Your task to perform on an android device: Go to privacy settings Image 0: 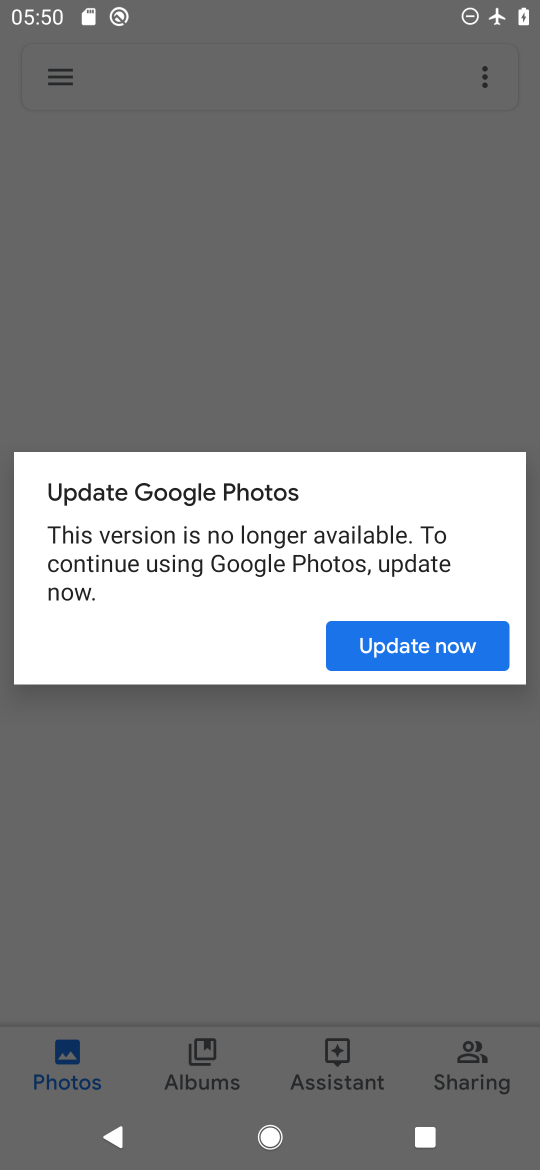
Step 0: press back button
Your task to perform on an android device: Go to privacy settings Image 1: 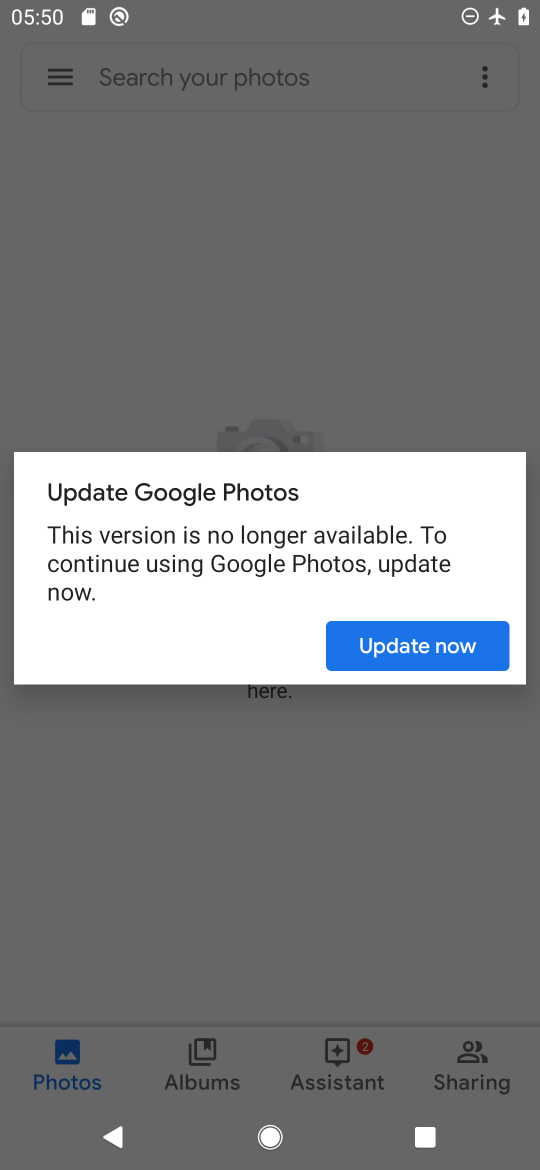
Step 1: press home button
Your task to perform on an android device: Go to privacy settings Image 2: 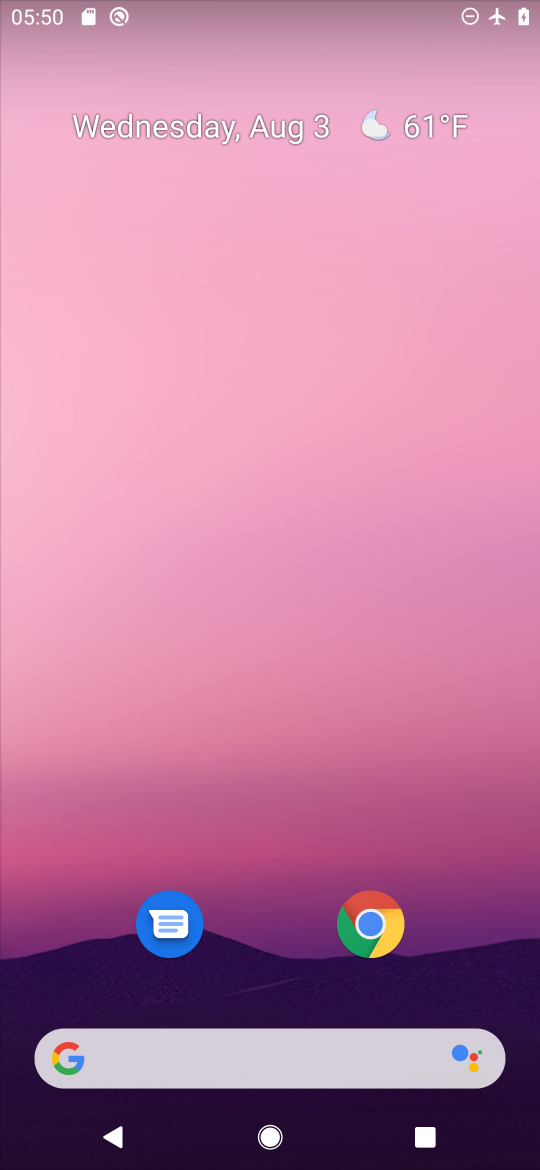
Step 2: drag from (241, 902) to (240, 182)
Your task to perform on an android device: Go to privacy settings Image 3: 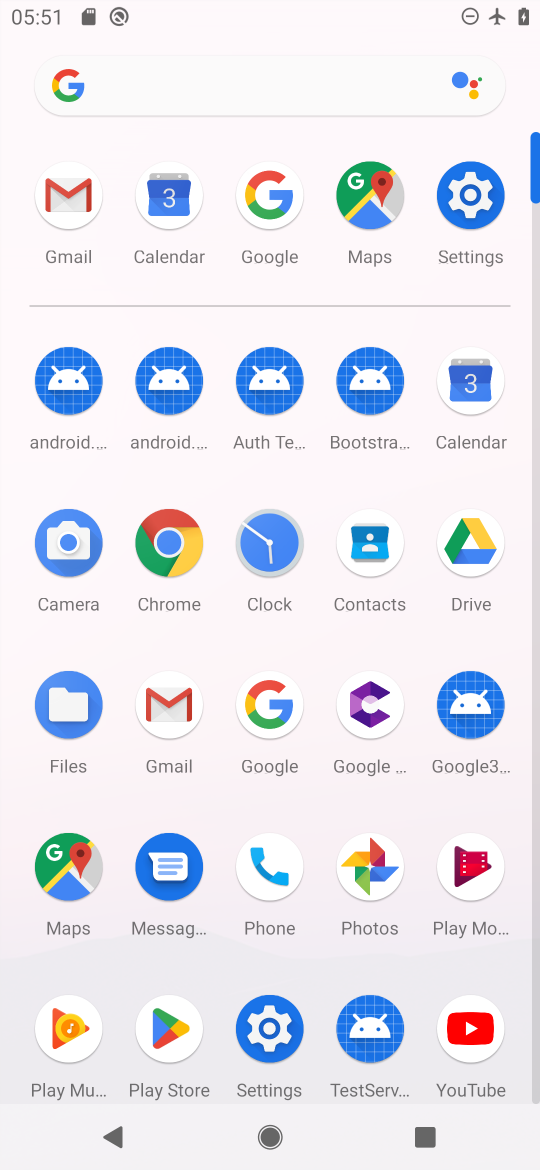
Step 3: click (483, 237)
Your task to perform on an android device: Go to privacy settings Image 4: 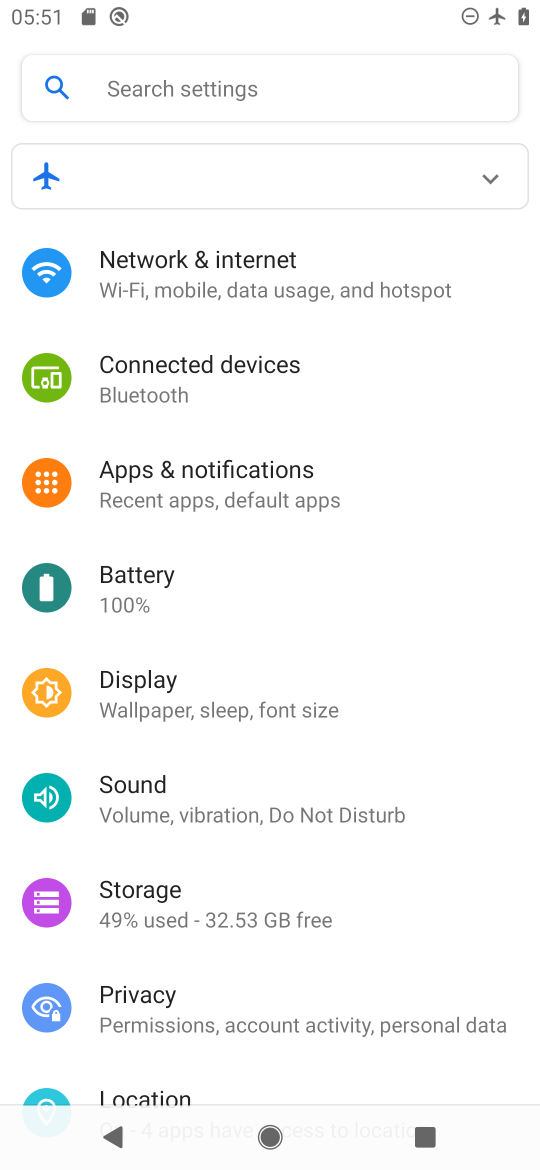
Step 4: click (236, 1005)
Your task to perform on an android device: Go to privacy settings Image 5: 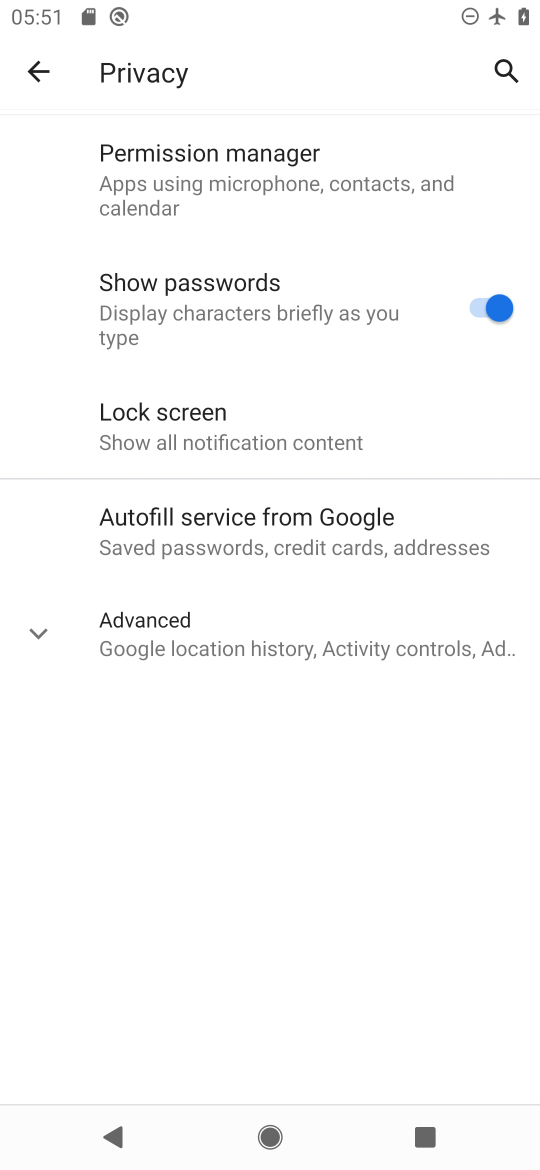
Step 5: task complete